Your task to perform on an android device: turn on sleep mode Image 0: 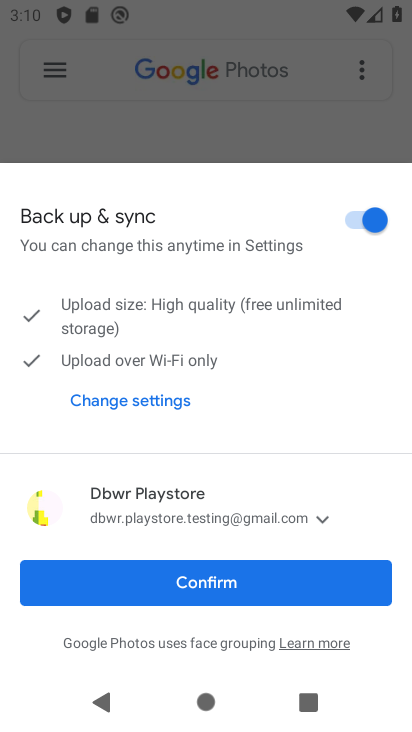
Step 0: click (195, 583)
Your task to perform on an android device: turn on sleep mode Image 1: 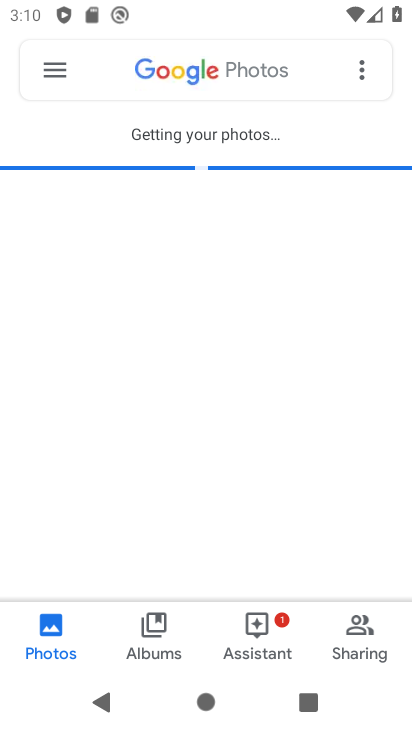
Step 1: press home button
Your task to perform on an android device: turn on sleep mode Image 2: 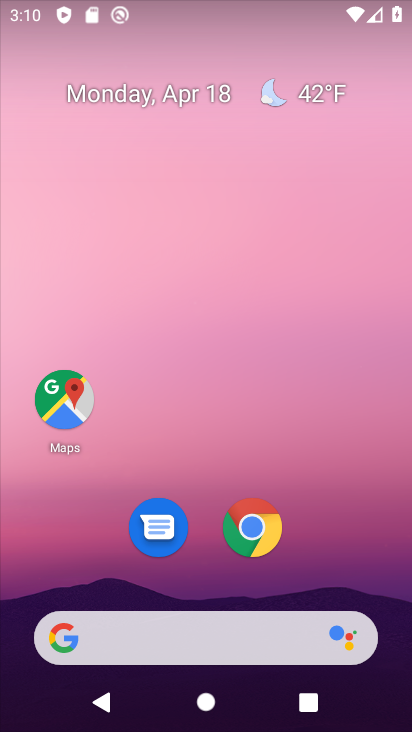
Step 2: drag from (380, 557) to (331, 89)
Your task to perform on an android device: turn on sleep mode Image 3: 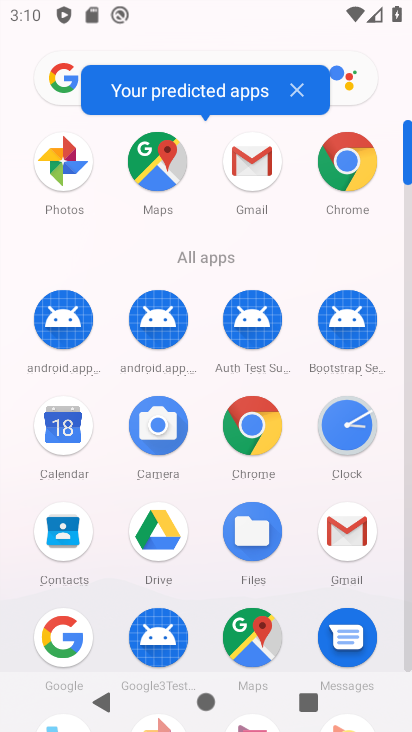
Step 3: click (408, 649)
Your task to perform on an android device: turn on sleep mode Image 4: 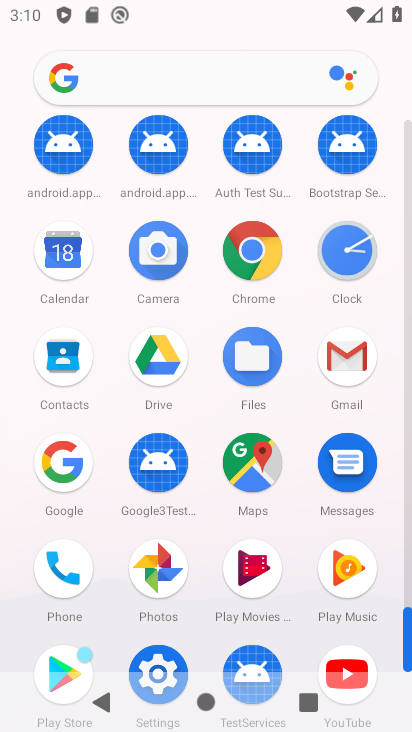
Step 4: drag from (406, 623) to (398, 675)
Your task to perform on an android device: turn on sleep mode Image 5: 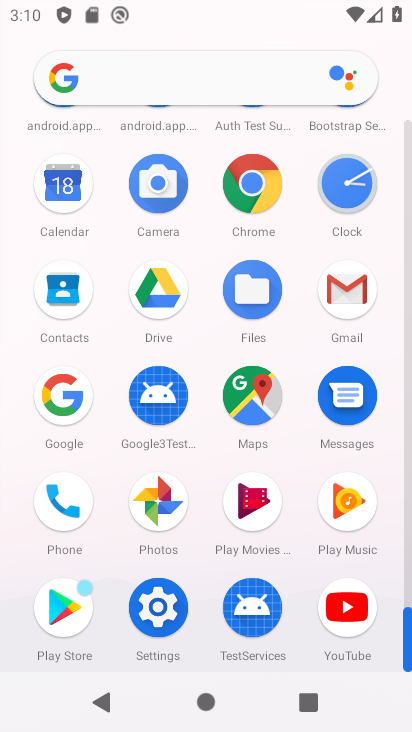
Step 5: click (156, 608)
Your task to perform on an android device: turn on sleep mode Image 6: 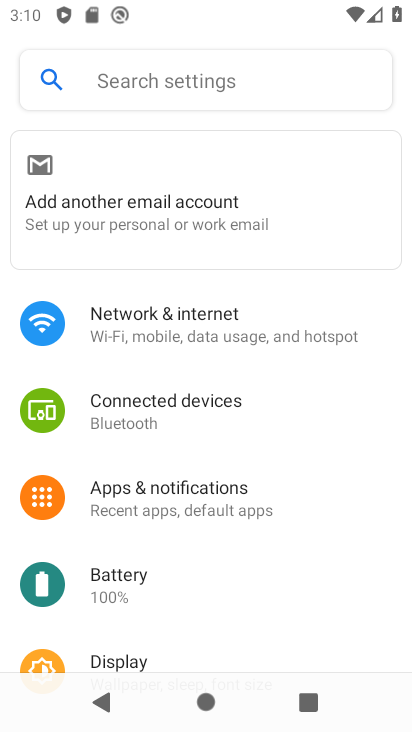
Step 6: drag from (298, 586) to (320, 282)
Your task to perform on an android device: turn on sleep mode Image 7: 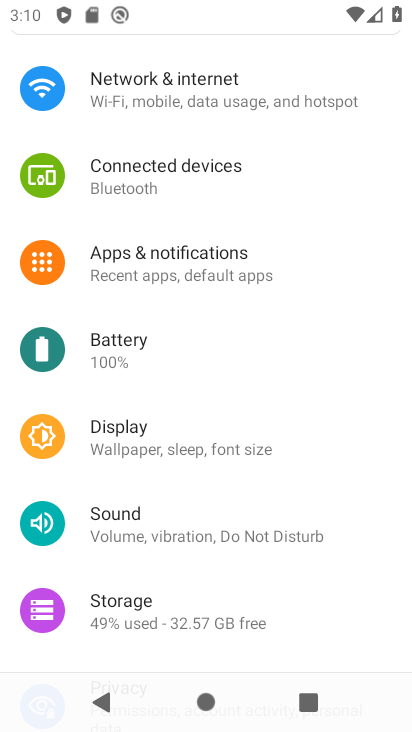
Step 7: click (108, 435)
Your task to perform on an android device: turn on sleep mode Image 8: 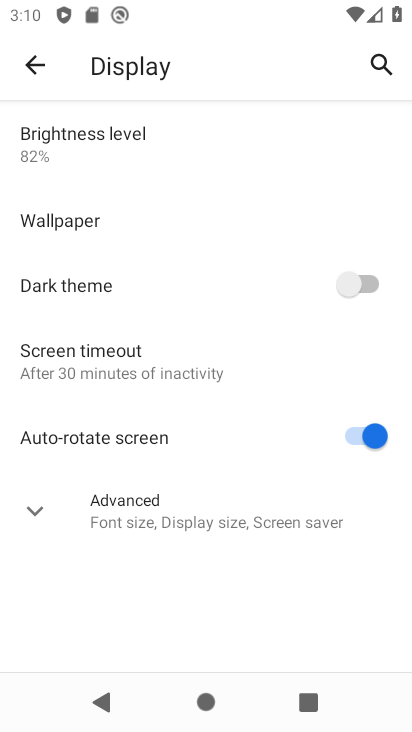
Step 8: click (36, 511)
Your task to perform on an android device: turn on sleep mode Image 9: 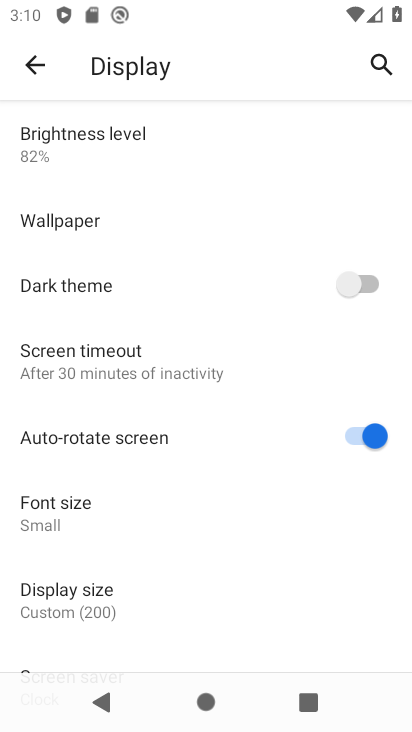
Step 9: task complete